Your task to perform on an android device: toggle javascript in the chrome app Image 0: 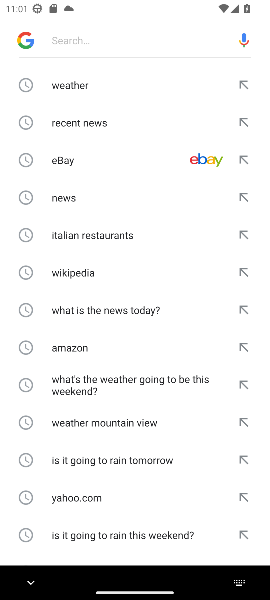
Step 0: press home button
Your task to perform on an android device: toggle javascript in the chrome app Image 1: 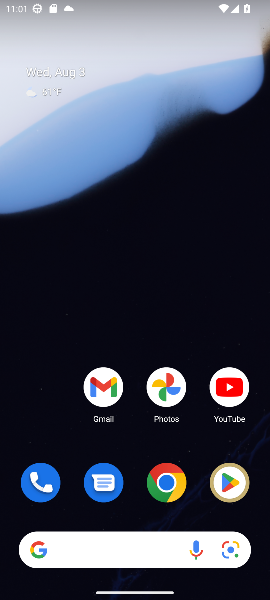
Step 1: click (173, 480)
Your task to perform on an android device: toggle javascript in the chrome app Image 2: 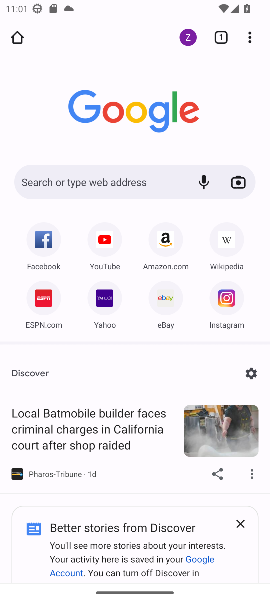
Step 2: click (250, 45)
Your task to perform on an android device: toggle javascript in the chrome app Image 3: 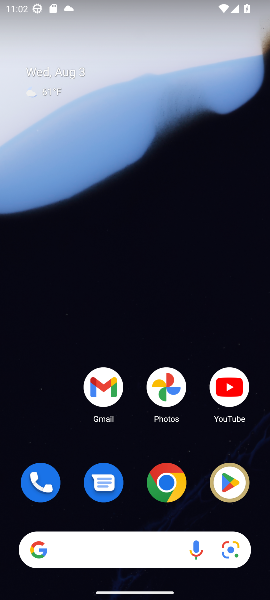
Step 3: drag from (132, 523) to (112, 213)
Your task to perform on an android device: toggle javascript in the chrome app Image 4: 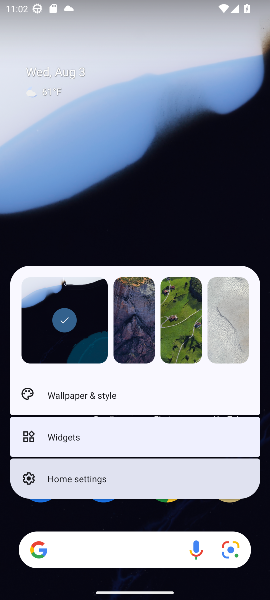
Step 4: click (114, 209)
Your task to perform on an android device: toggle javascript in the chrome app Image 5: 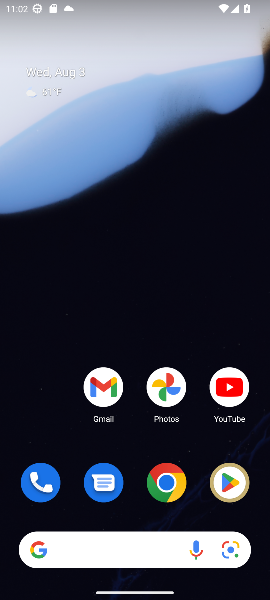
Step 5: drag from (69, 531) to (50, 115)
Your task to perform on an android device: toggle javascript in the chrome app Image 6: 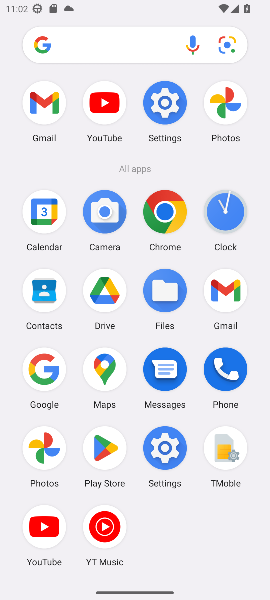
Step 6: click (176, 228)
Your task to perform on an android device: toggle javascript in the chrome app Image 7: 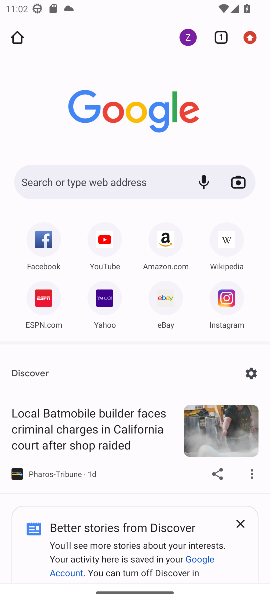
Step 7: click (250, 35)
Your task to perform on an android device: toggle javascript in the chrome app Image 8: 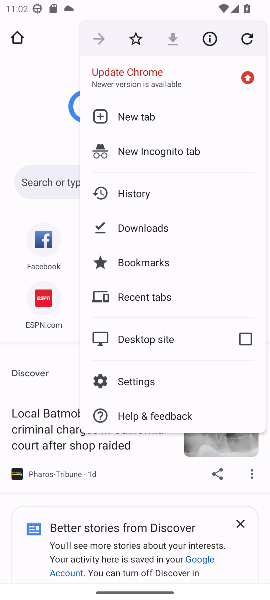
Step 8: click (143, 382)
Your task to perform on an android device: toggle javascript in the chrome app Image 9: 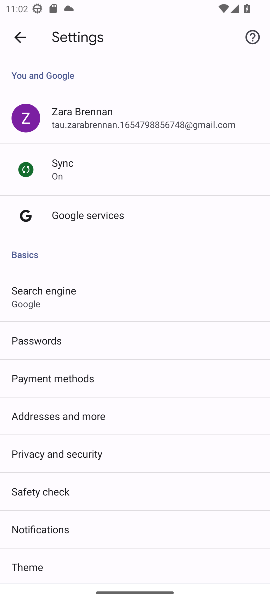
Step 9: task complete